Your task to perform on an android device: show emergency info Image 0: 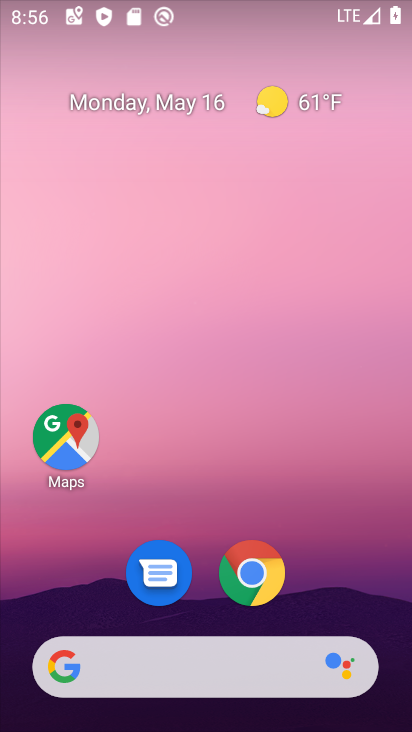
Step 0: drag from (211, 724) to (228, 274)
Your task to perform on an android device: show emergency info Image 1: 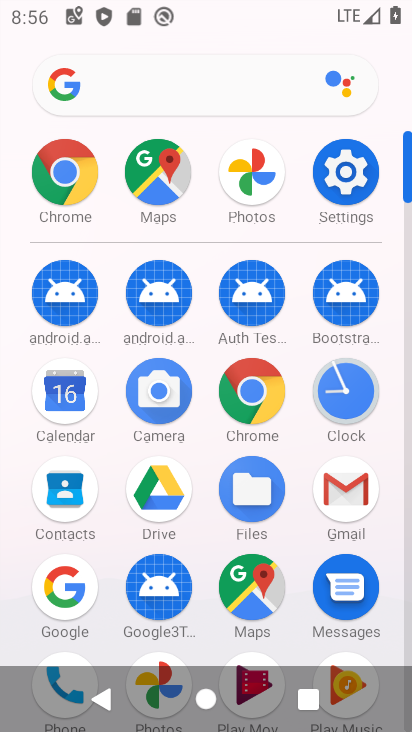
Step 1: click (336, 179)
Your task to perform on an android device: show emergency info Image 2: 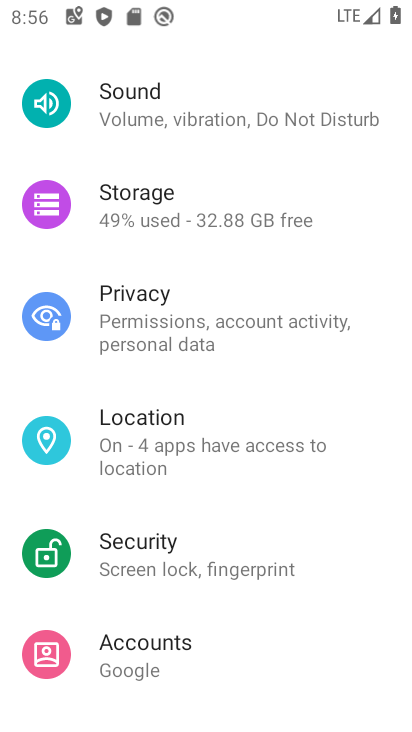
Step 2: drag from (158, 693) to (131, 124)
Your task to perform on an android device: show emergency info Image 3: 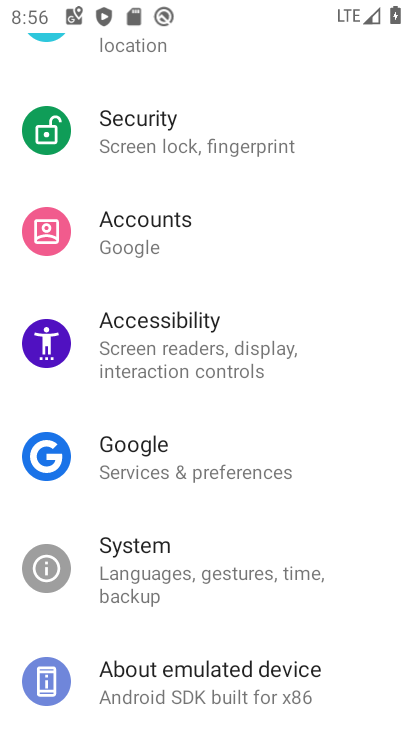
Step 3: drag from (157, 632) to (158, 171)
Your task to perform on an android device: show emergency info Image 4: 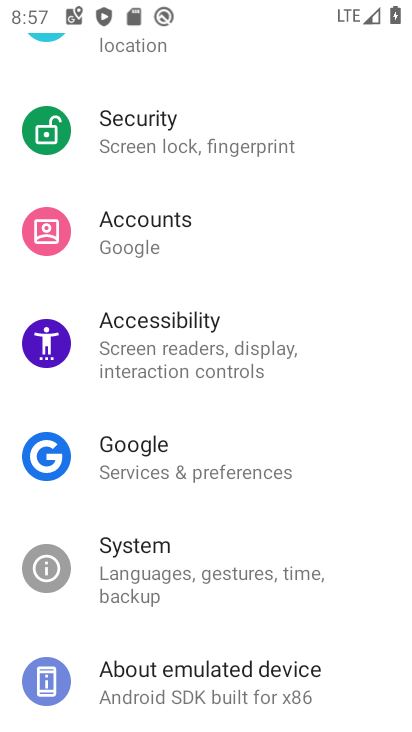
Step 4: drag from (186, 670) to (172, 250)
Your task to perform on an android device: show emergency info Image 5: 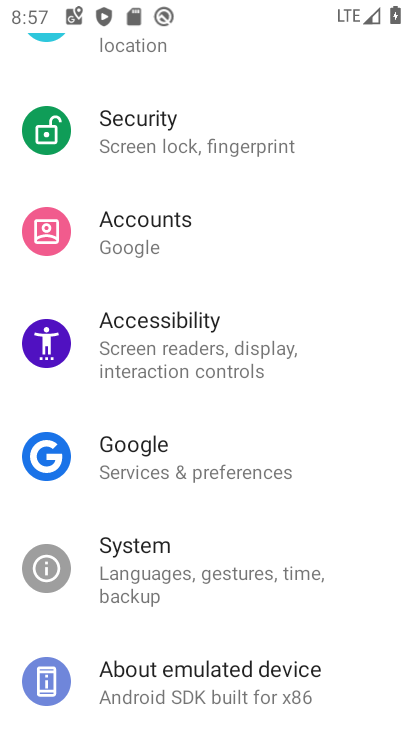
Step 5: click (183, 674)
Your task to perform on an android device: show emergency info Image 6: 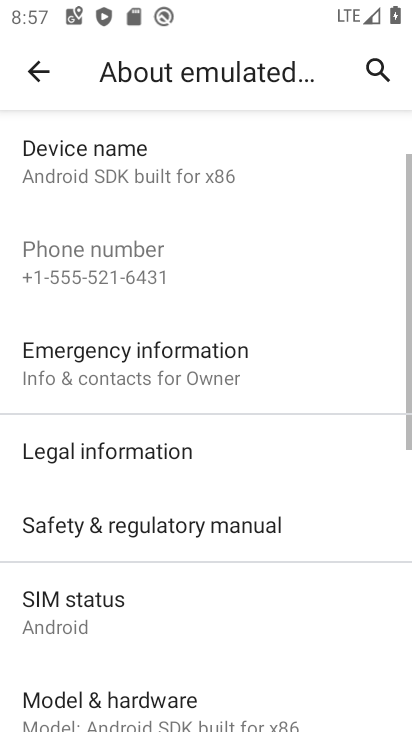
Step 6: click (156, 360)
Your task to perform on an android device: show emergency info Image 7: 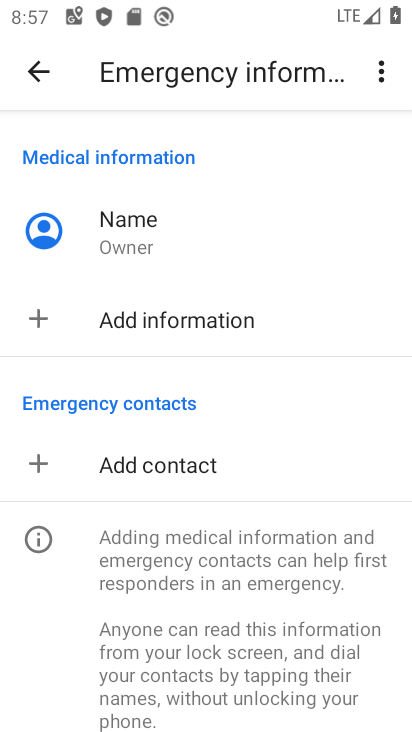
Step 7: task complete